Your task to perform on an android device: Go to ESPN.com Image 0: 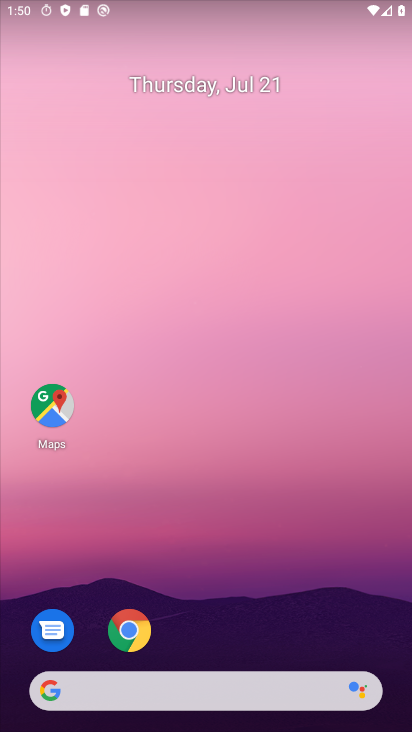
Step 0: drag from (194, 607) to (236, 32)
Your task to perform on an android device: Go to ESPN.com Image 1: 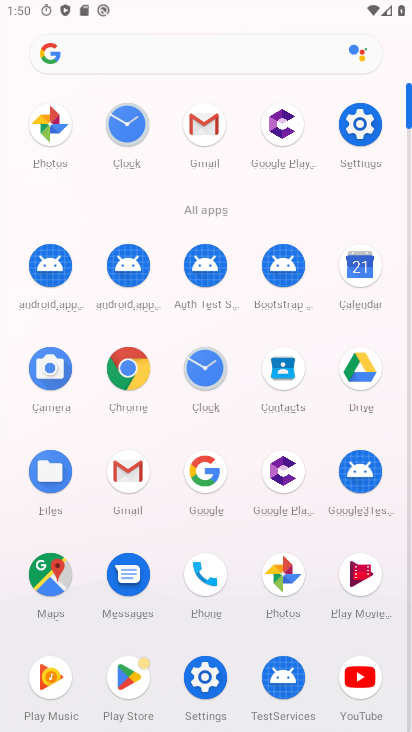
Step 1: click (208, 469)
Your task to perform on an android device: Go to ESPN.com Image 2: 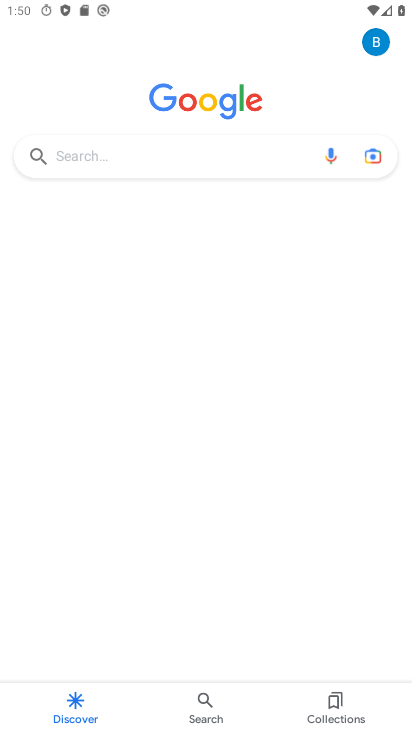
Step 2: click (120, 154)
Your task to perform on an android device: Go to ESPN.com Image 3: 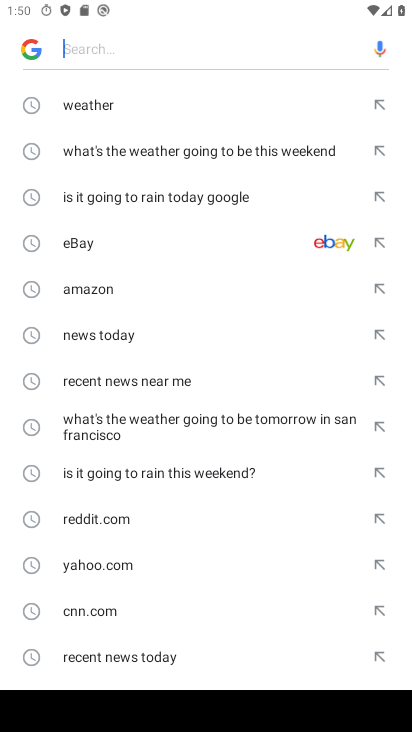
Step 3: type "espn.com"
Your task to perform on an android device: Go to ESPN.com Image 4: 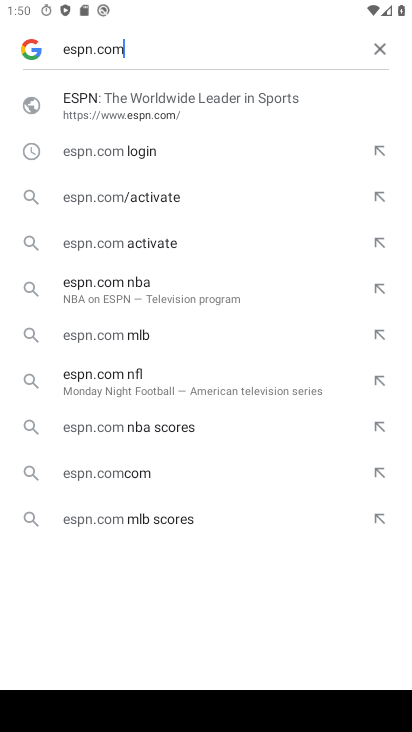
Step 4: click (140, 110)
Your task to perform on an android device: Go to ESPN.com Image 5: 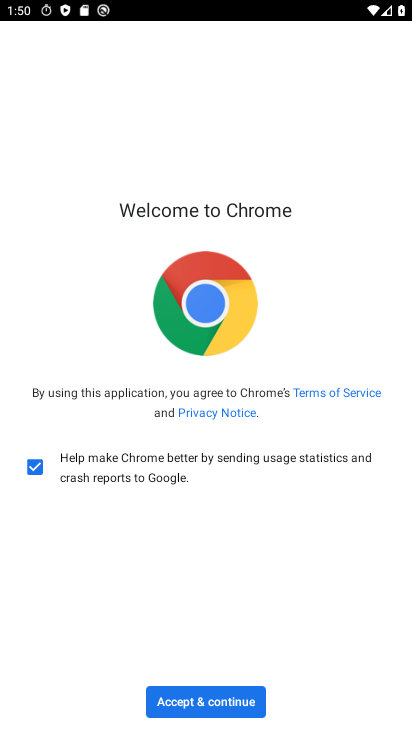
Step 5: click (194, 707)
Your task to perform on an android device: Go to ESPN.com Image 6: 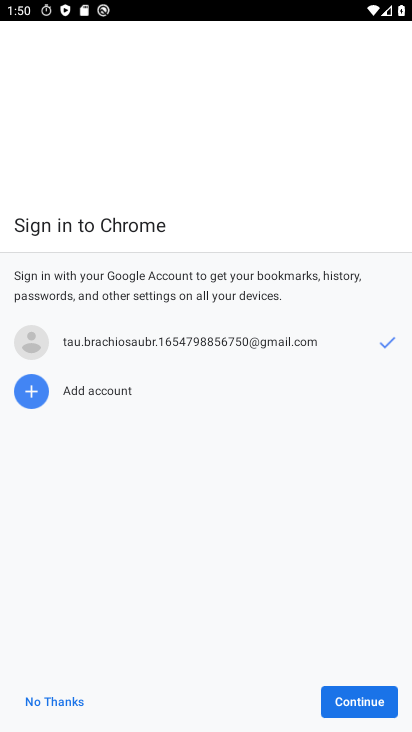
Step 6: click (366, 696)
Your task to perform on an android device: Go to ESPN.com Image 7: 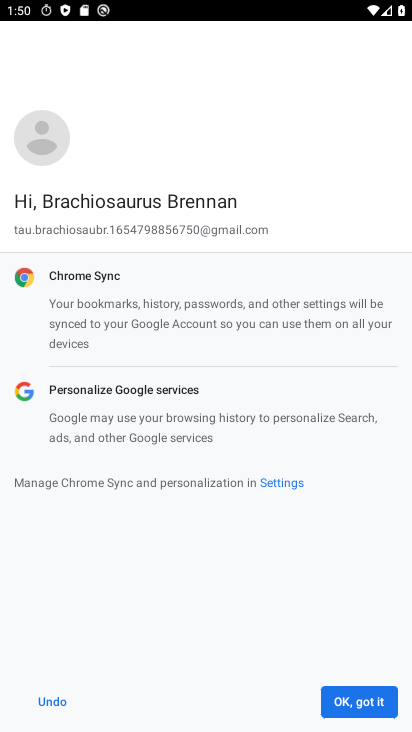
Step 7: click (366, 695)
Your task to perform on an android device: Go to ESPN.com Image 8: 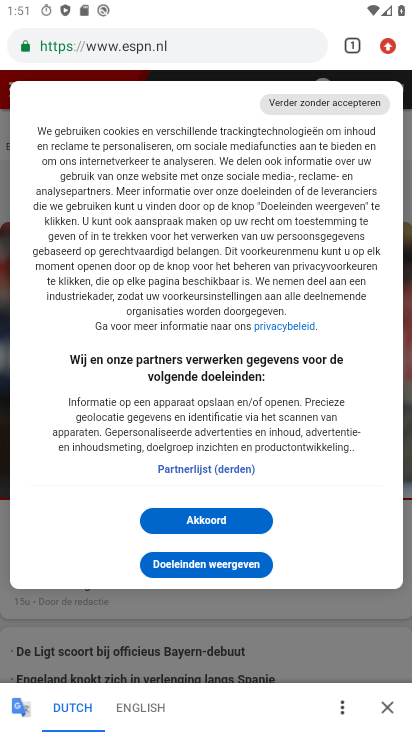
Step 8: task complete